Your task to perform on an android device: What's the weather going to be this weekend? Image 0: 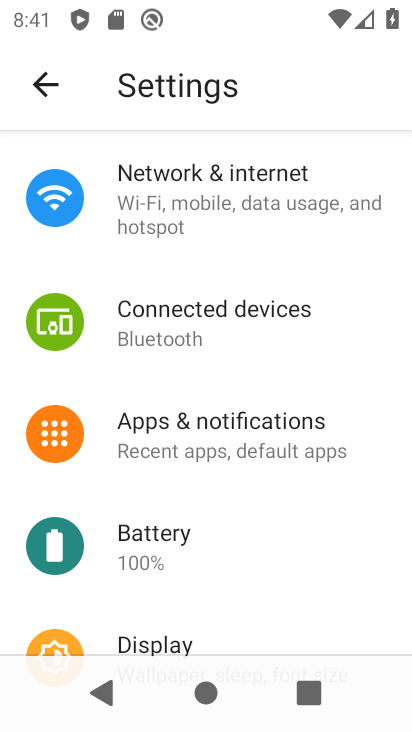
Step 0: press home button
Your task to perform on an android device: What's the weather going to be this weekend? Image 1: 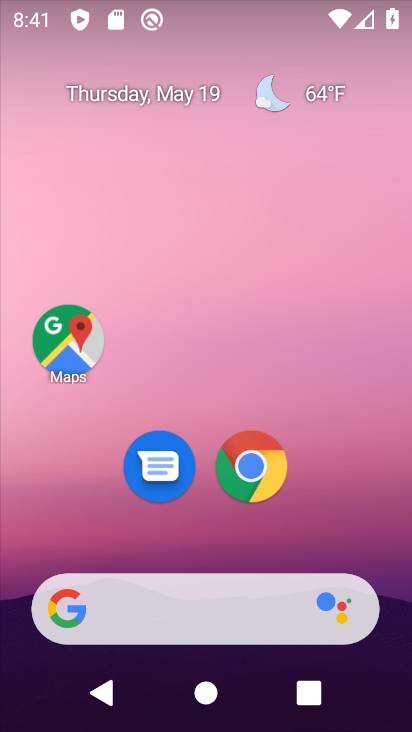
Step 1: drag from (360, 567) to (300, 89)
Your task to perform on an android device: What's the weather going to be this weekend? Image 2: 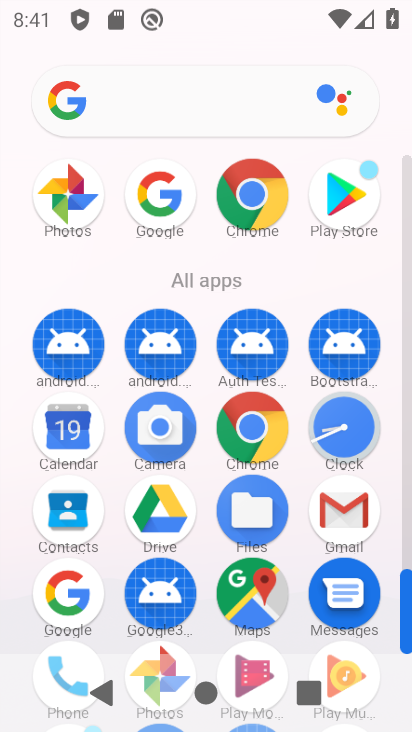
Step 2: click (155, 223)
Your task to perform on an android device: What's the weather going to be this weekend? Image 3: 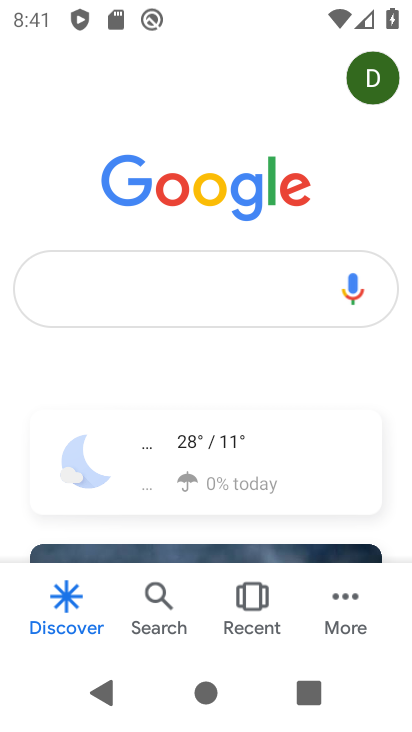
Step 3: click (96, 284)
Your task to perform on an android device: What's the weather going to be this weekend? Image 4: 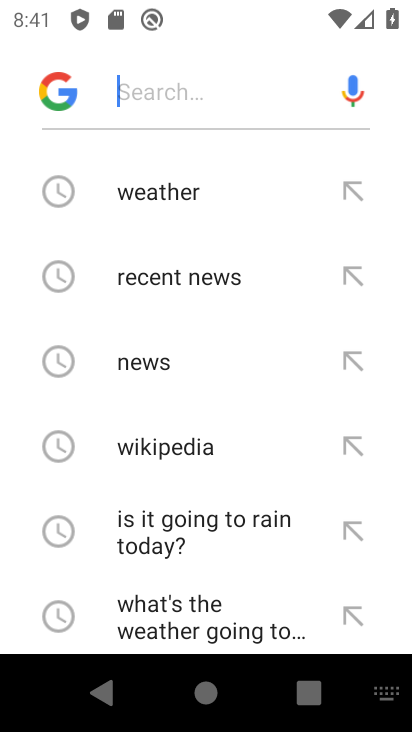
Step 4: drag from (202, 613) to (219, 243)
Your task to perform on an android device: What's the weather going to be this weekend? Image 5: 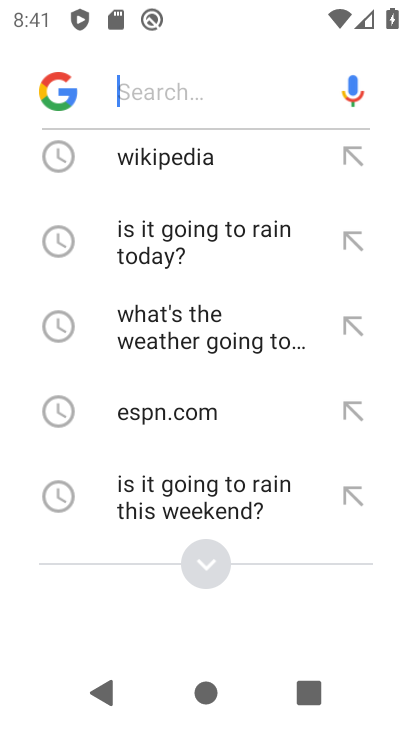
Step 5: click (217, 334)
Your task to perform on an android device: What's the weather going to be this weekend? Image 6: 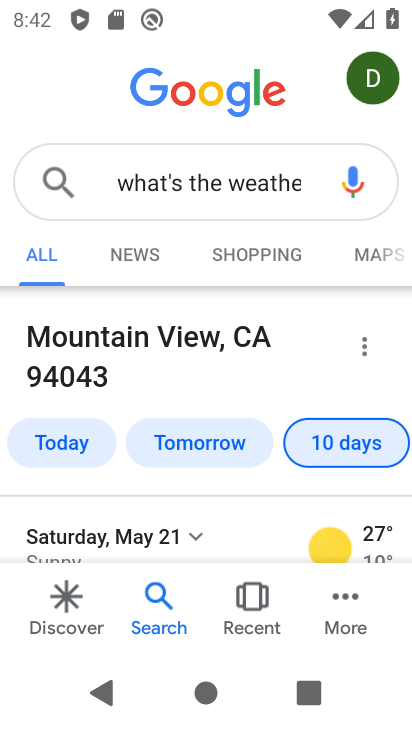
Step 6: task complete